Your task to perform on an android device: delete location history Image 0: 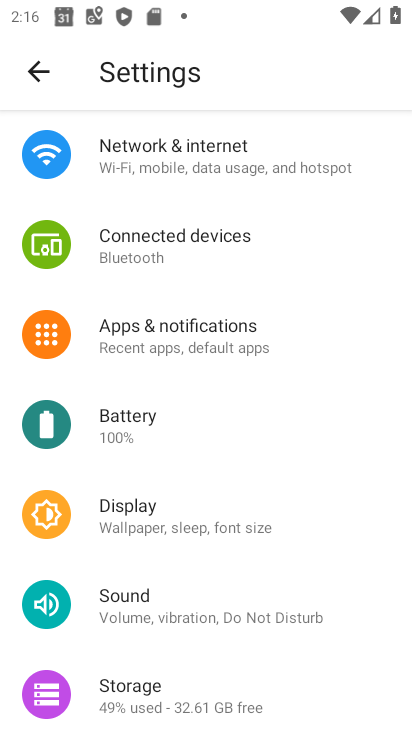
Step 0: drag from (250, 495) to (241, 121)
Your task to perform on an android device: delete location history Image 1: 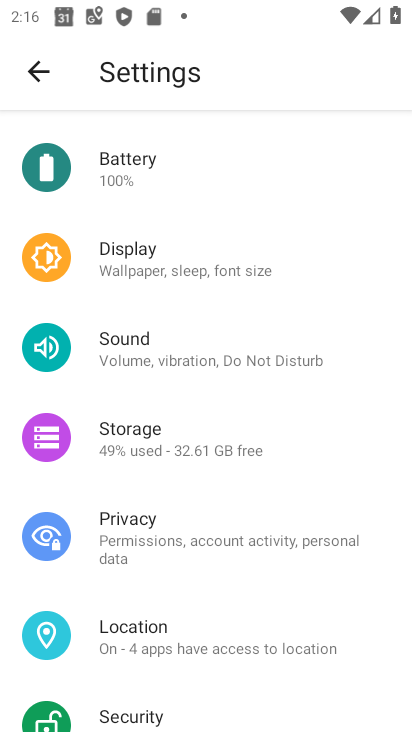
Step 1: click (129, 645)
Your task to perform on an android device: delete location history Image 2: 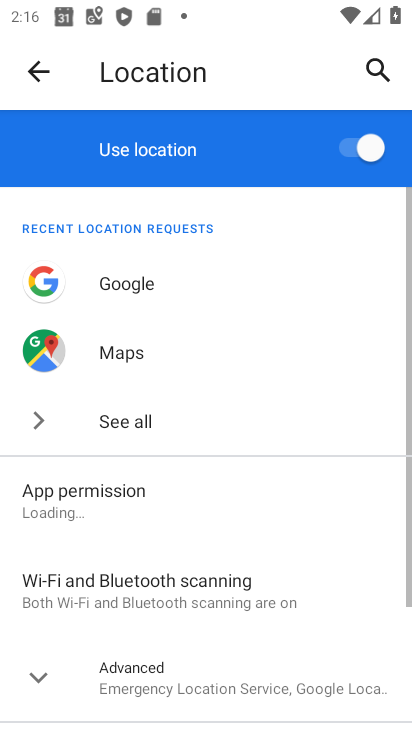
Step 2: drag from (197, 610) to (208, 259)
Your task to perform on an android device: delete location history Image 3: 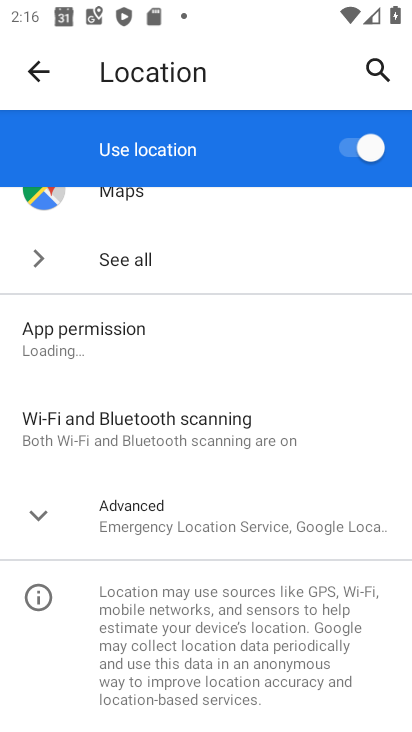
Step 3: click (134, 526)
Your task to perform on an android device: delete location history Image 4: 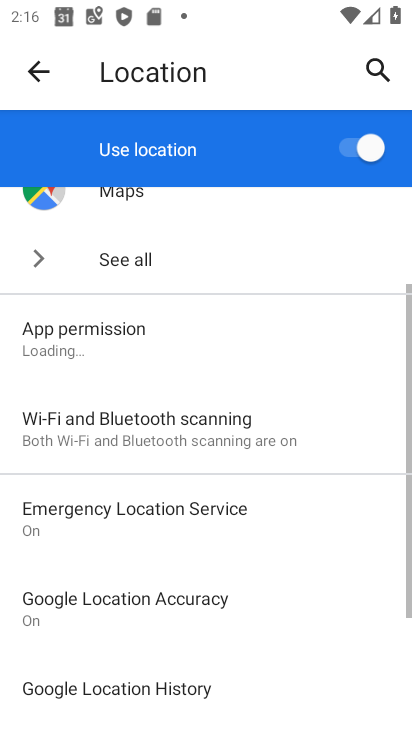
Step 4: drag from (210, 512) to (222, 236)
Your task to perform on an android device: delete location history Image 5: 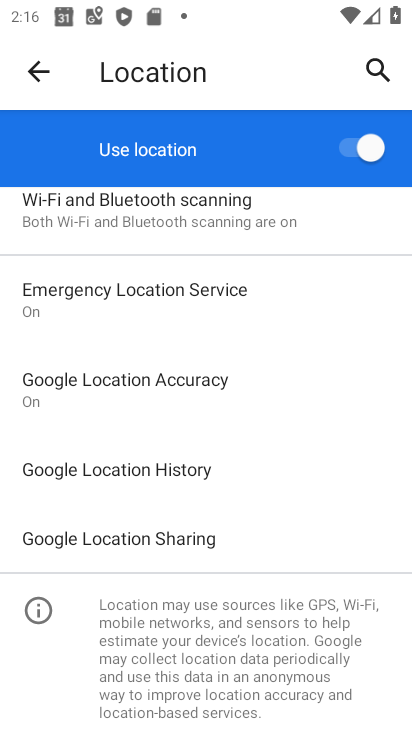
Step 5: click (105, 477)
Your task to perform on an android device: delete location history Image 6: 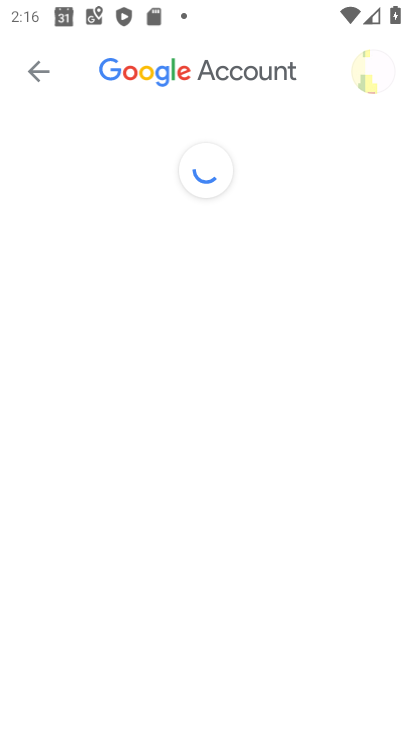
Step 6: drag from (217, 606) to (209, 250)
Your task to perform on an android device: delete location history Image 7: 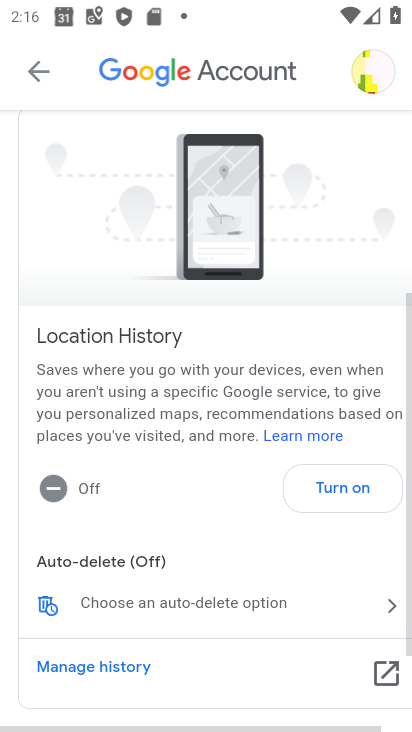
Step 7: drag from (214, 633) to (201, 245)
Your task to perform on an android device: delete location history Image 8: 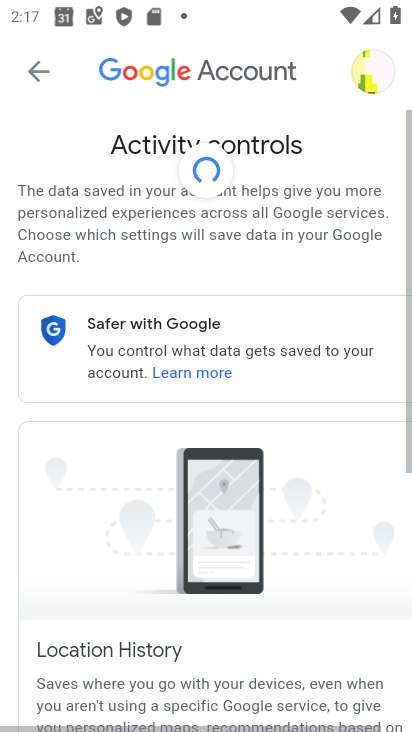
Step 8: click (48, 477)
Your task to perform on an android device: delete location history Image 9: 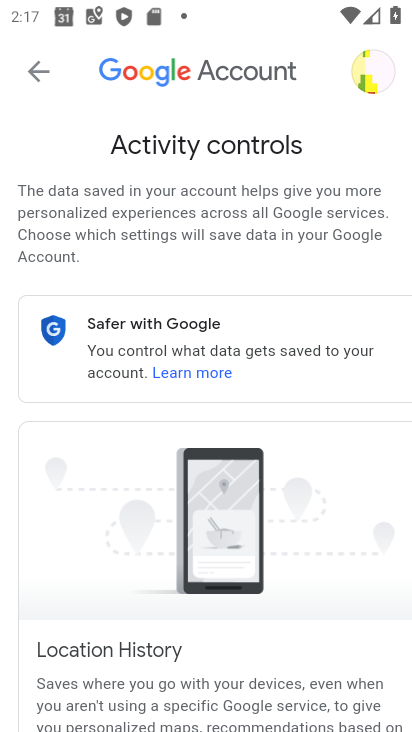
Step 9: drag from (134, 588) to (188, 96)
Your task to perform on an android device: delete location history Image 10: 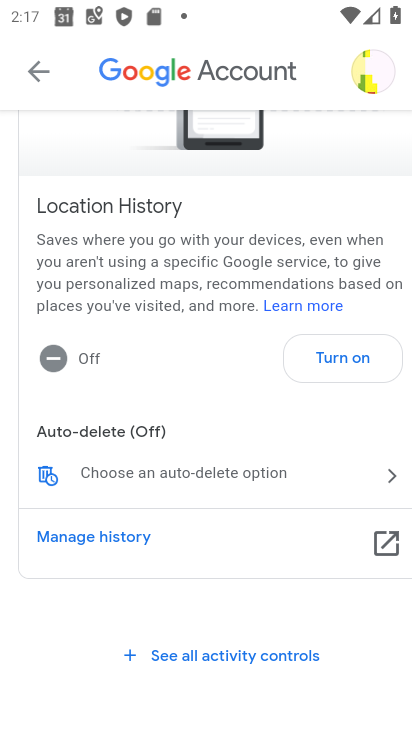
Step 10: click (44, 485)
Your task to perform on an android device: delete location history Image 11: 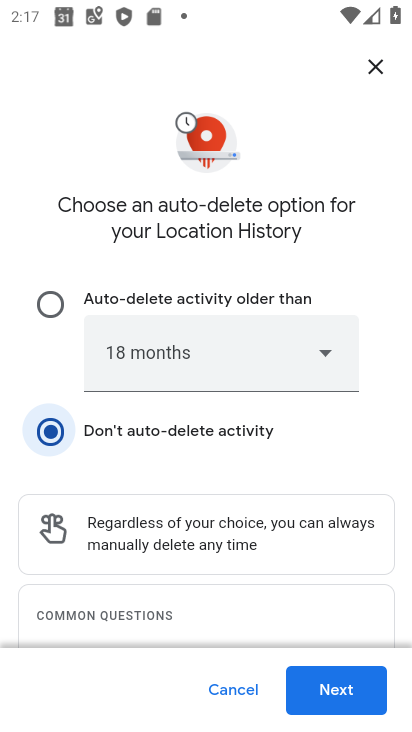
Step 11: click (325, 710)
Your task to perform on an android device: delete location history Image 12: 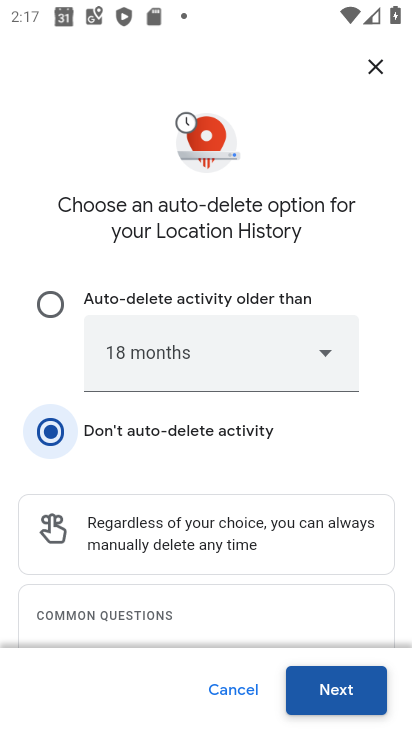
Step 12: click (331, 687)
Your task to perform on an android device: delete location history Image 13: 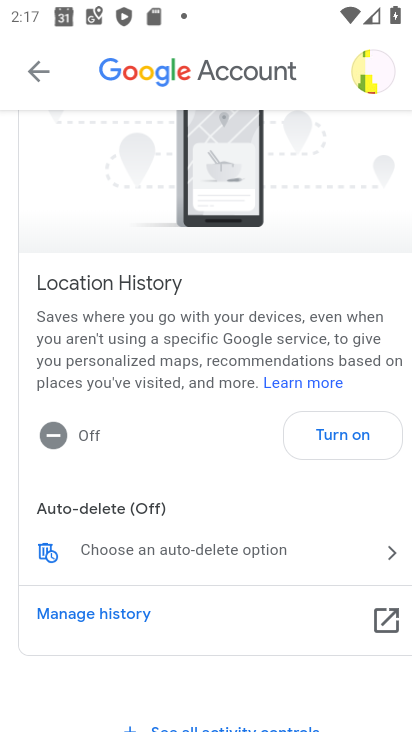
Step 13: task complete